Your task to perform on an android device: check android version Image 0: 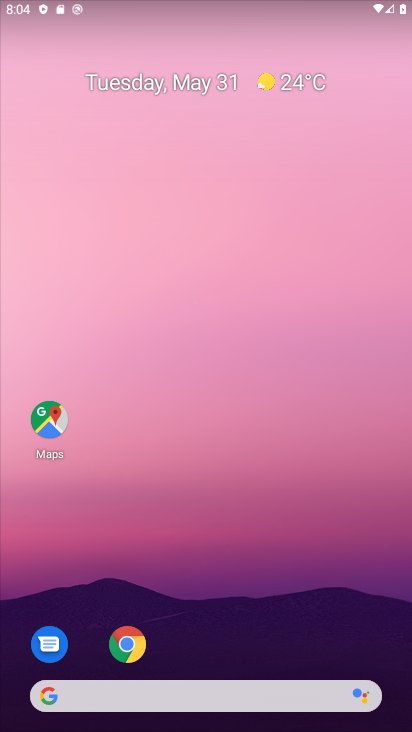
Step 0: drag from (270, 590) to (275, 129)
Your task to perform on an android device: check android version Image 1: 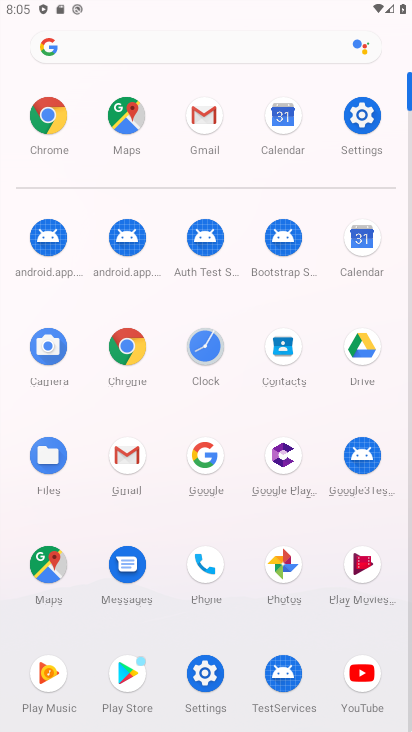
Step 1: click (206, 675)
Your task to perform on an android device: check android version Image 2: 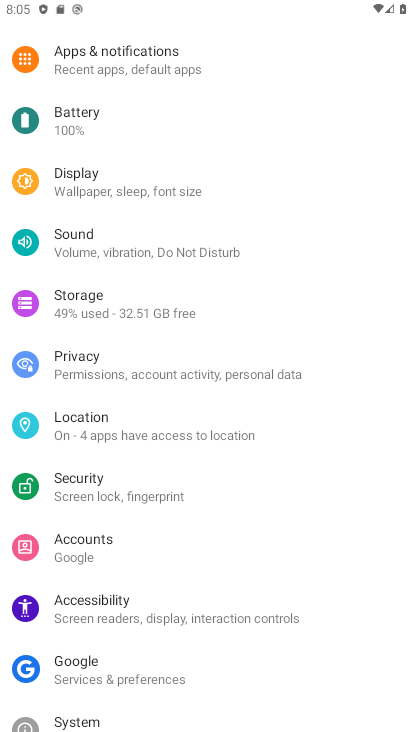
Step 2: drag from (205, 682) to (210, 349)
Your task to perform on an android device: check android version Image 3: 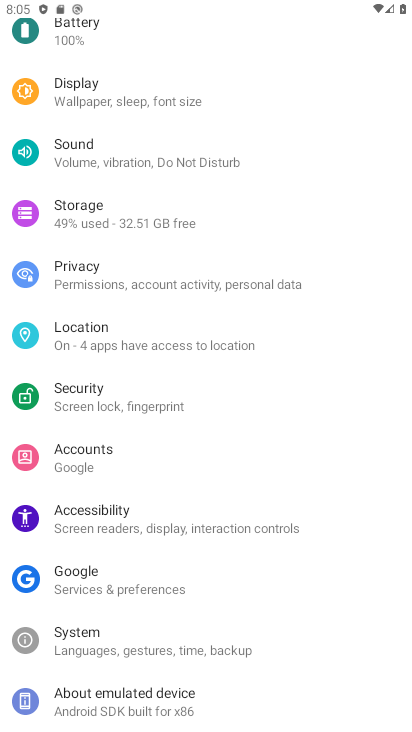
Step 3: click (163, 690)
Your task to perform on an android device: check android version Image 4: 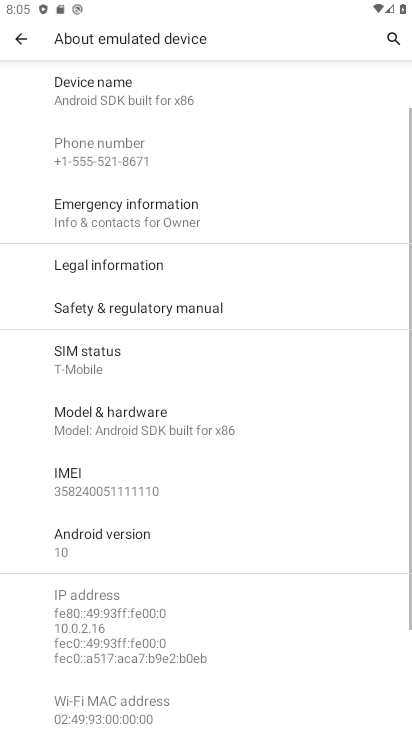
Step 4: click (147, 531)
Your task to perform on an android device: check android version Image 5: 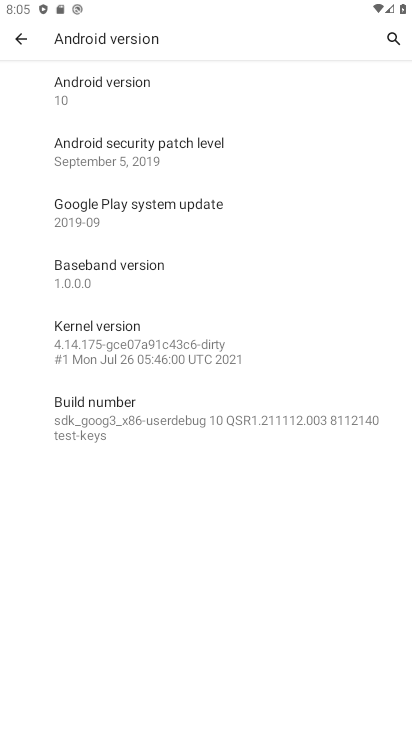
Step 5: task complete